Your task to perform on an android device: Open settings on Google Maps Image 0: 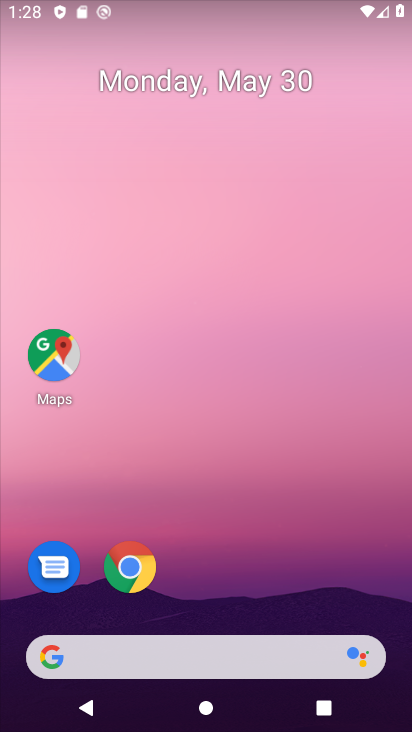
Step 0: drag from (242, 601) to (182, 200)
Your task to perform on an android device: Open settings on Google Maps Image 1: 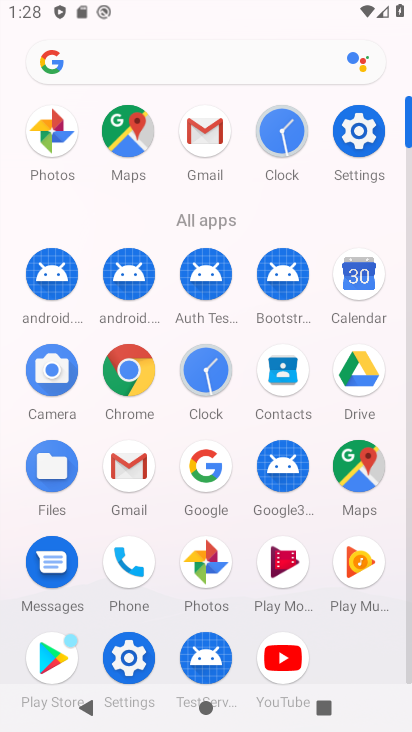
Step 1: click (130, 663)
Your task to perform on an android device: Open settings on Google Maps Image 2: 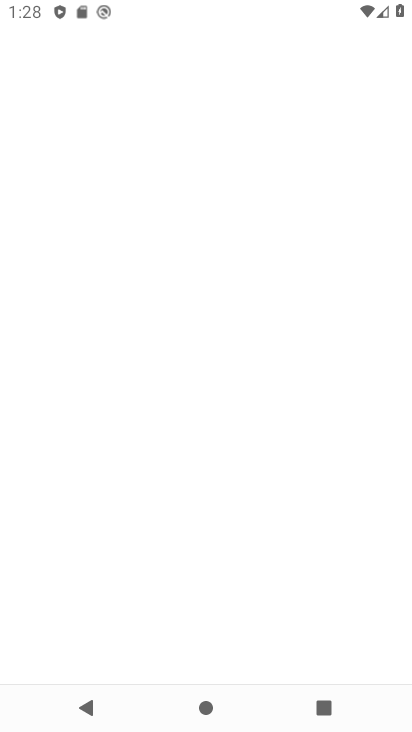
Step 2: click (214, 711)
Your task to perform on an android device: Open settings on Google Maps Image 3: 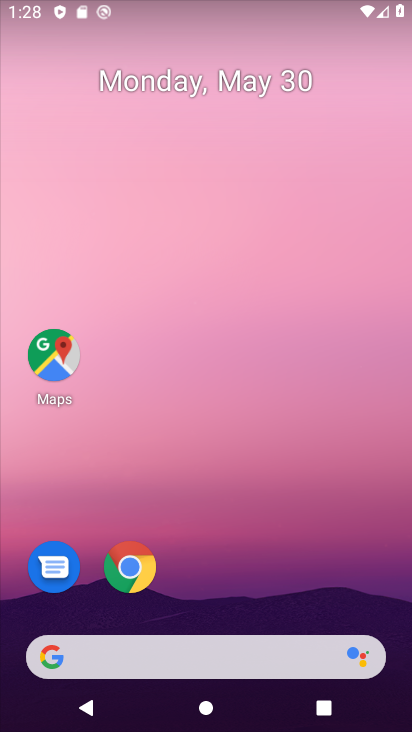
Step 3: drag from (270, 558) to (249, 113)
Your task to perform on an android device: Open settings on Google Maps Image 4: 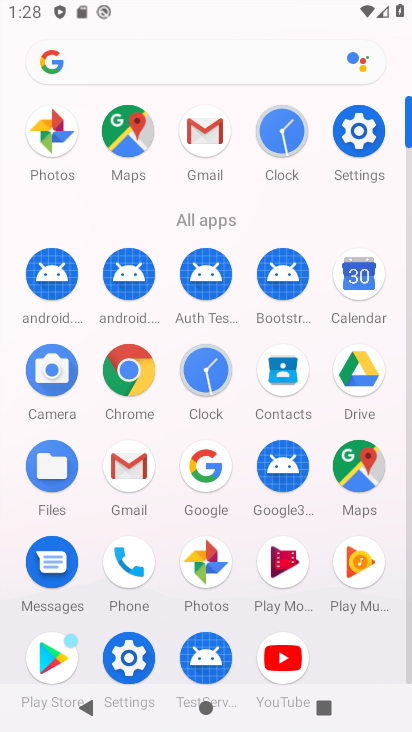
Step 4: click (357, 483)
Your task to perform on an android device: Open settings on Google Maps Image 5: 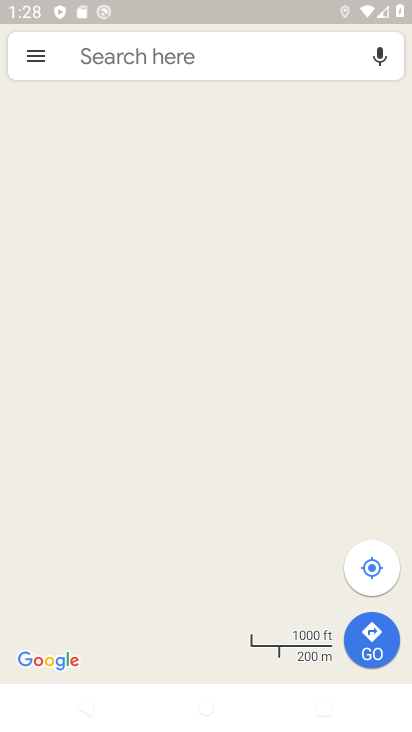
Step 5: click (38, 60)
Your task to perform on an android device: Open settings on Google Maps Image 6: 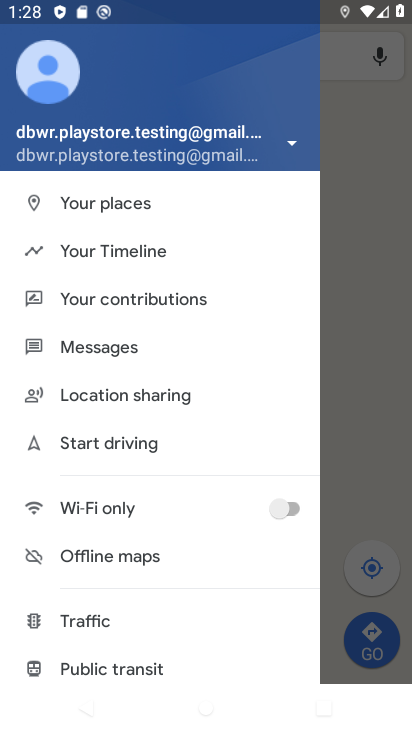
Step 6: drag from (139, 636) to (79, 202)
Your task to perform on an android device: Open settings on Google Maps Image 7: 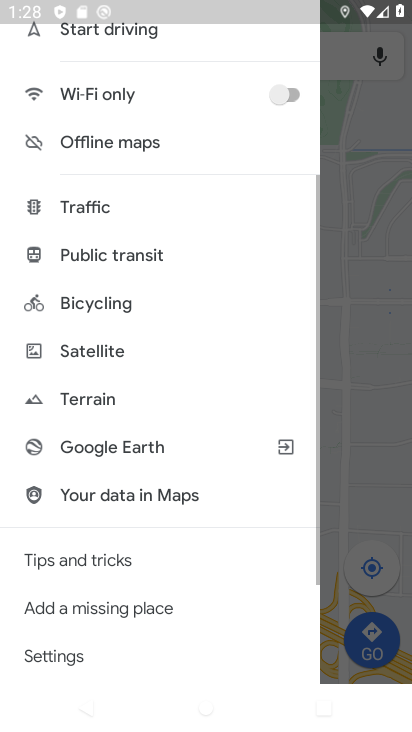
Step 7: click (95, 652)
Your task to perform on an android device: Open settings on Google Maps Image 8: 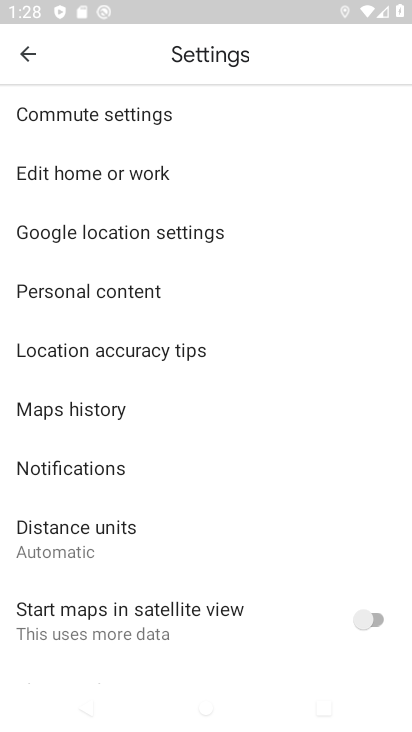
Step 8: task complete